Your task to perform on an android device: allow cookies in the chrome app Image 0: 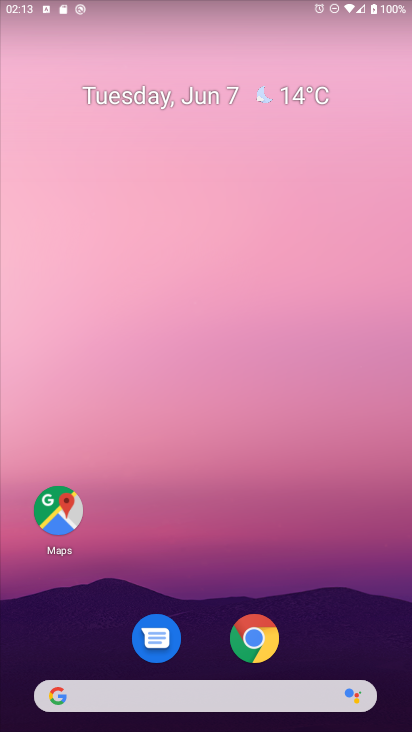
Step 0: drag from (259, 718) to (165, 166)
Your task to perform on an android device: allow cookies in the chrome app Image 1: 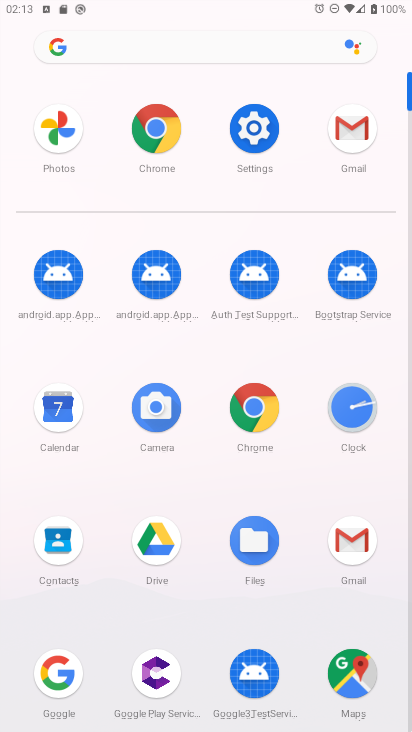
Step 1: click (136, 128)
Your task to perform on an android device: allow cookies in the chrome app Image 2: 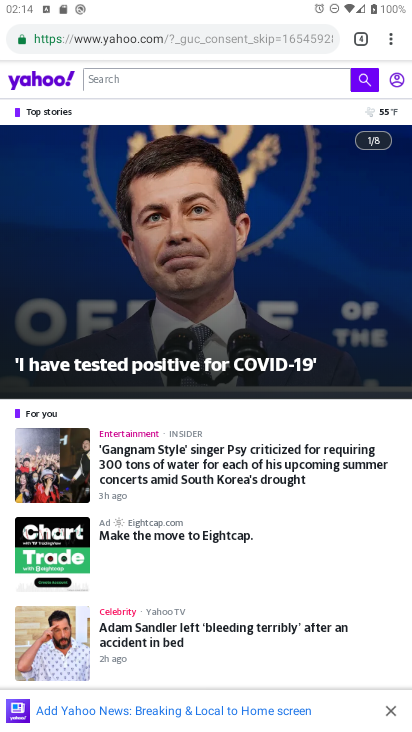
Step 2: click (385, 34)
Your task to perform on an android device: allow cookies in the chrome app Image 3: 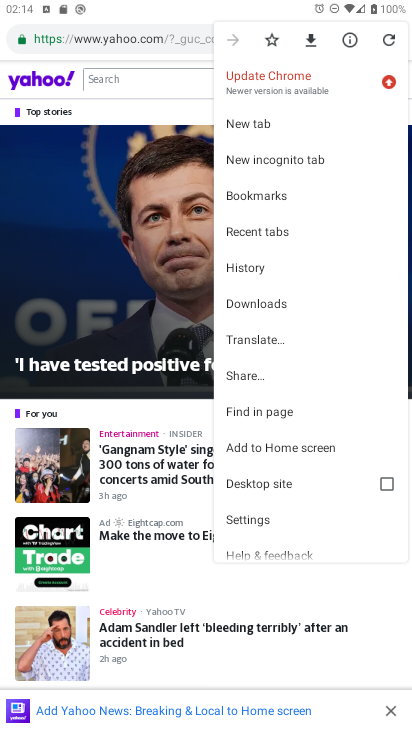
Step 3: click (252, 516)
Your task to perform on an android device: allow cookies in the chrome app Image 4: 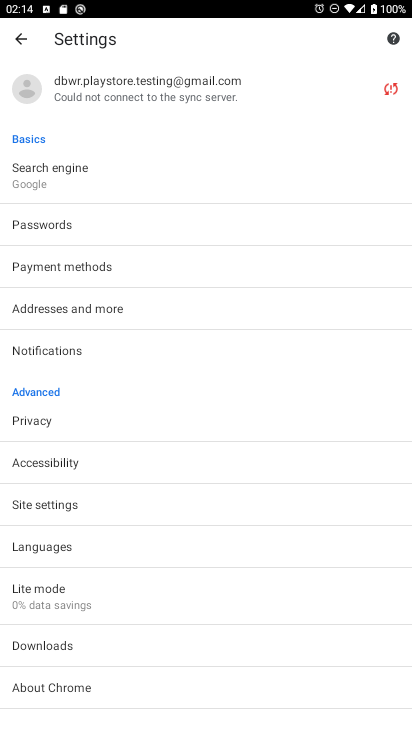
Step 4: click (52, 494)
Your task to perform on an android device: allow cookies in the chrome app Image 5: 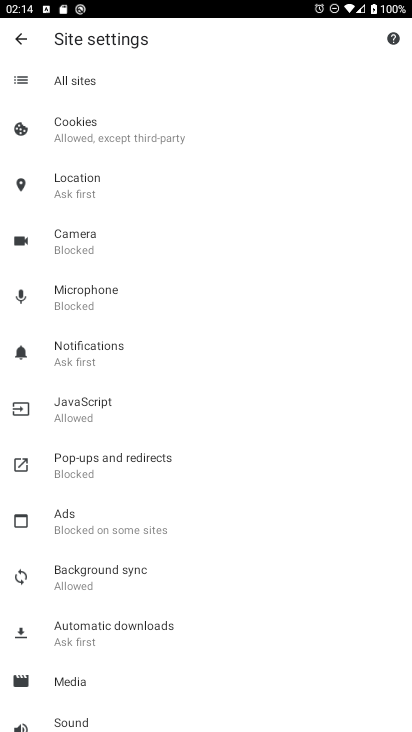
Step 5: click (94, 130)
Your task to perform on an android device: allow cookies in the chrome app Image 6: 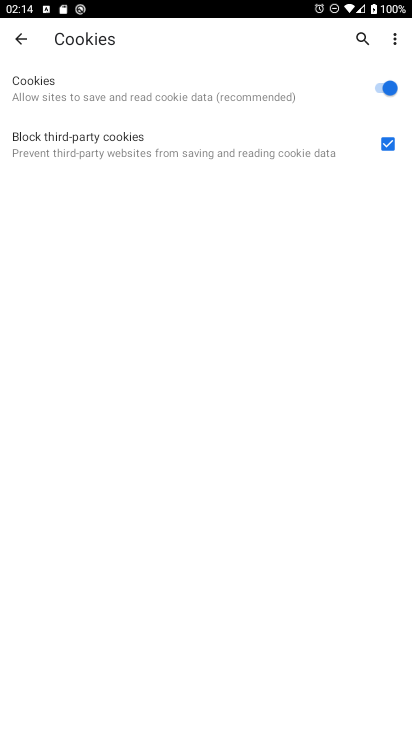
Step 6: click (389, 93)
Your task to perform on an android device: allow cookies in the chrome app Image 7: 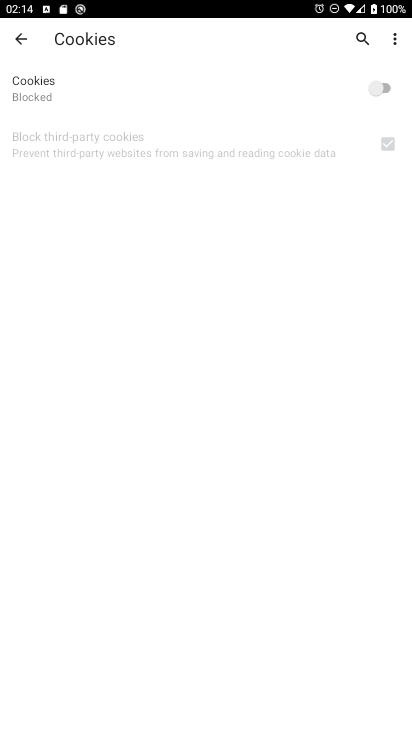
Step 7: click (389, 93)
Your task to perform on an android device: allow cookies in the chrome app Image 8: 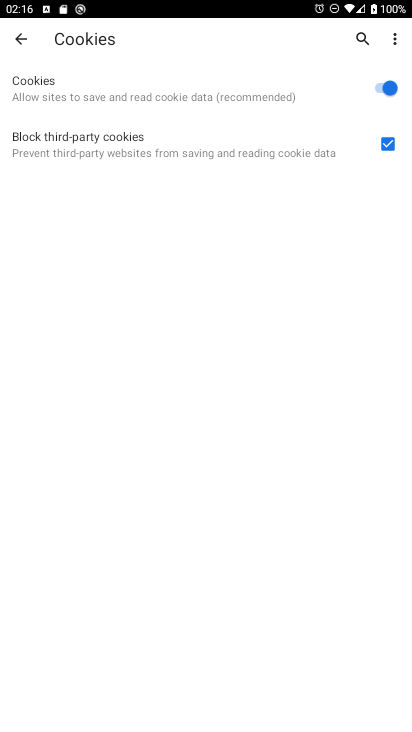
Step 8: task complete